Your task to perform on an android device: open app "The Home Depot" (install if not already installed) Image 0: 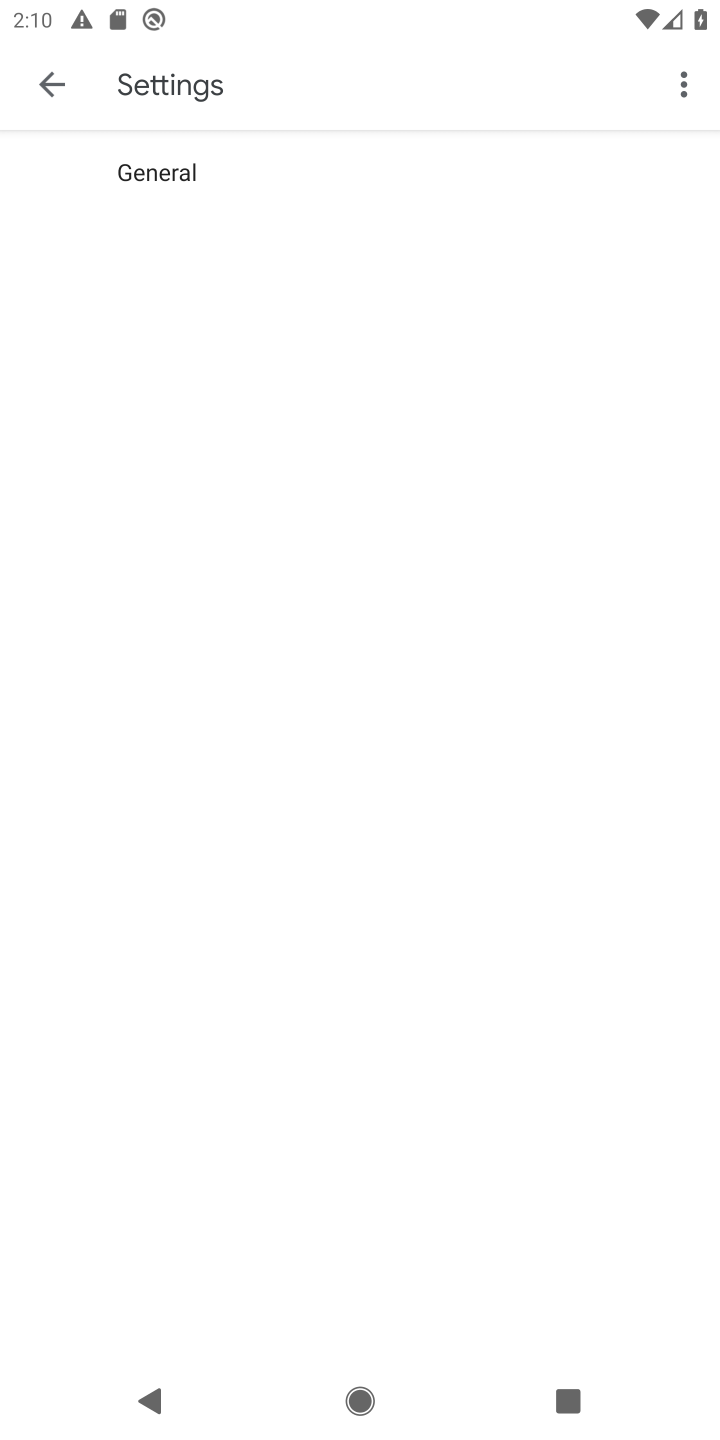
Step 0: press home button
Your task to perform on an android device: open app "The Home Depot" (install if not already installed) Image 1: 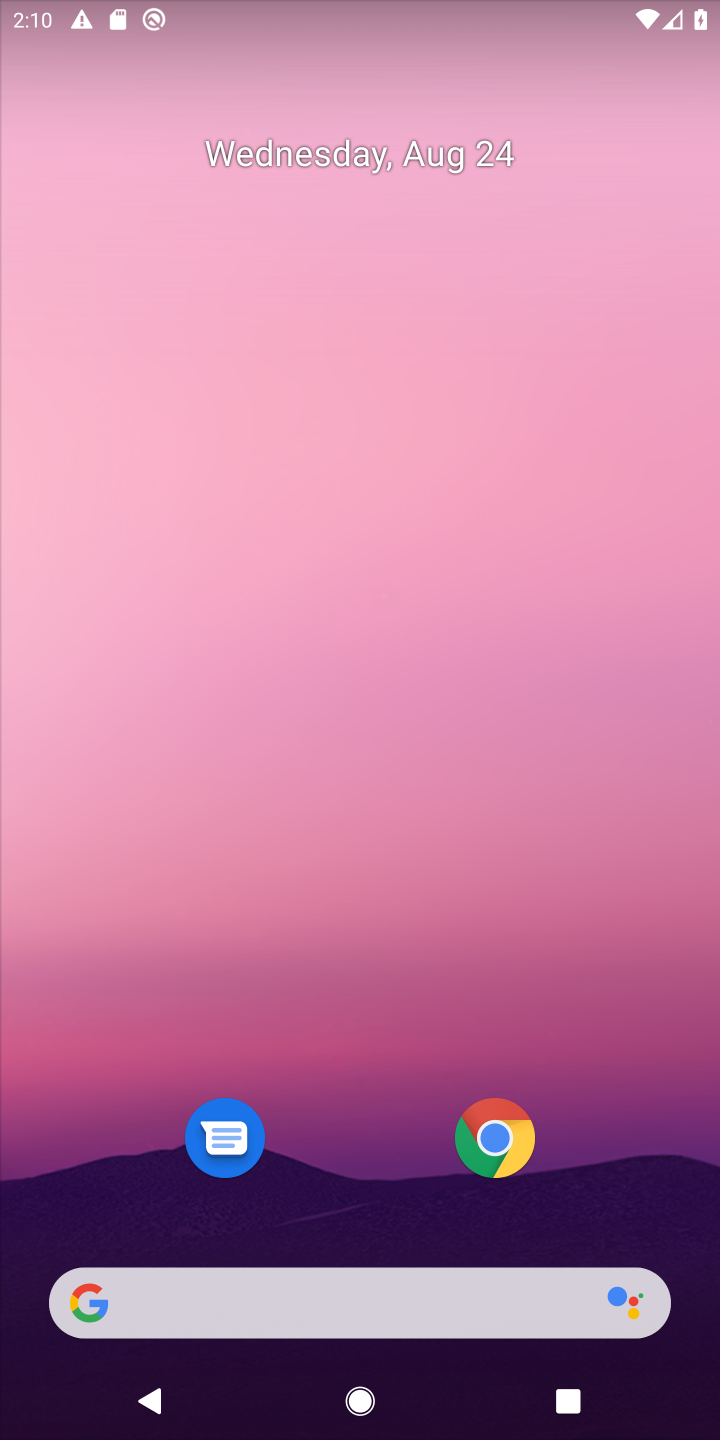
Step 1: drag from (357, 1180) to (359, 105)
Your task to perform on an android device: open app "The Home Depot" (install if not already installed) Image 2: 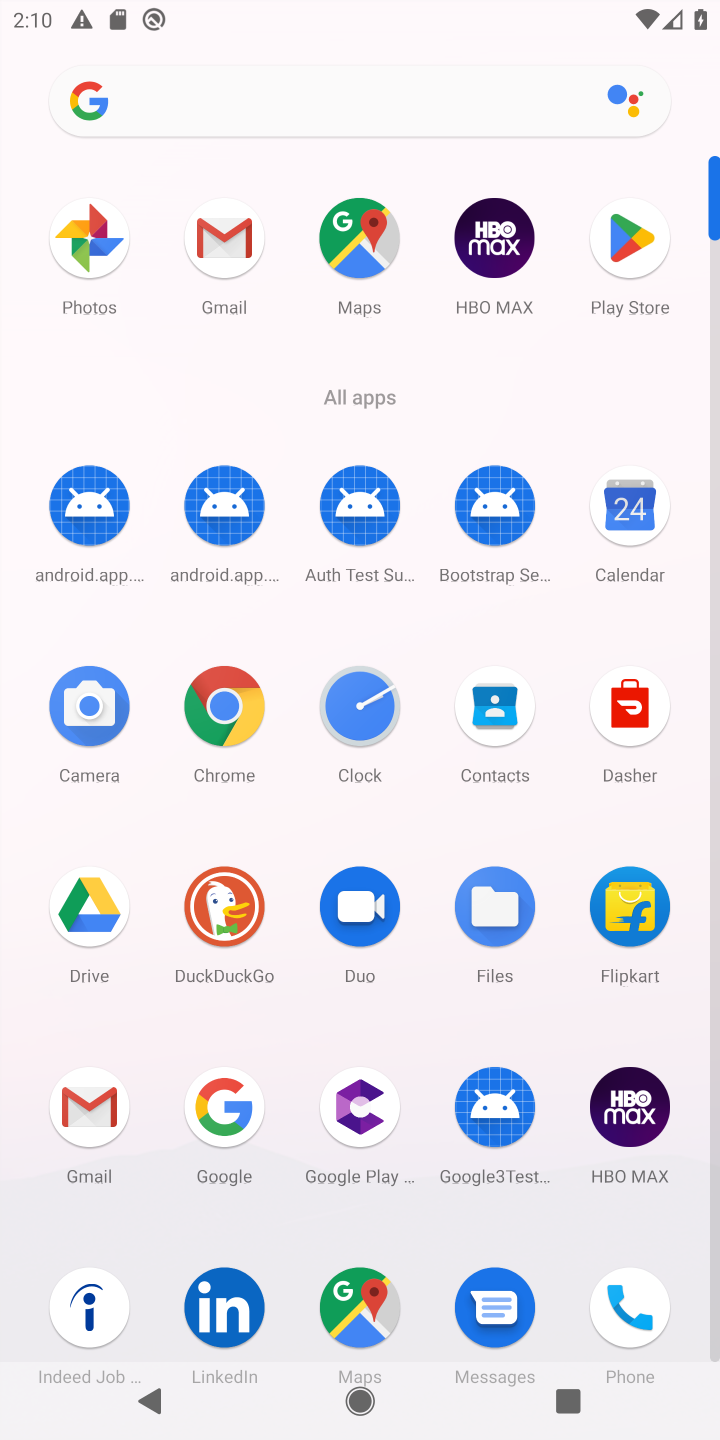
Step 2: click (629, 237)
Your task to perform on an android device: open app "The Home Depot" (install if not already installed) Image 3: 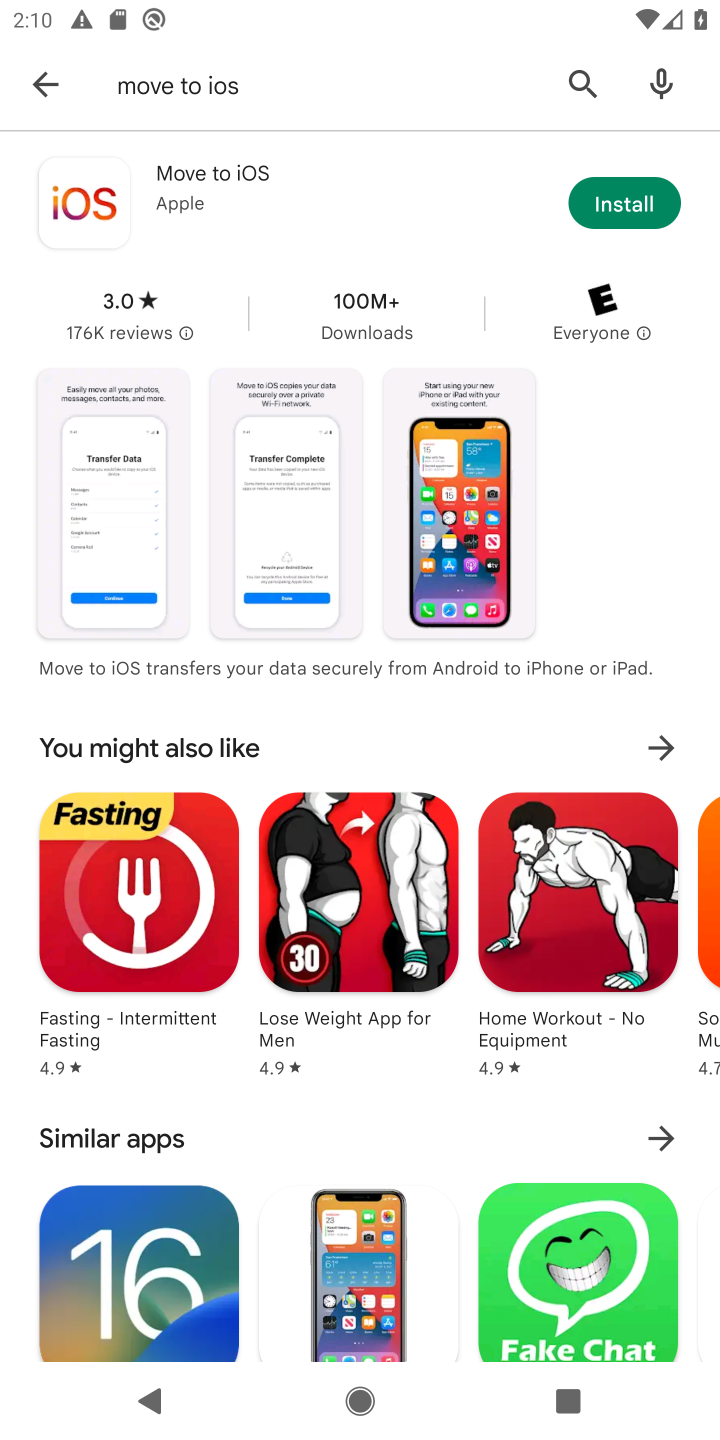
Step 3: click (586, 69)
Your task to perform on an android device: open app "The Home Depot" (install if not already installed) Image 4: 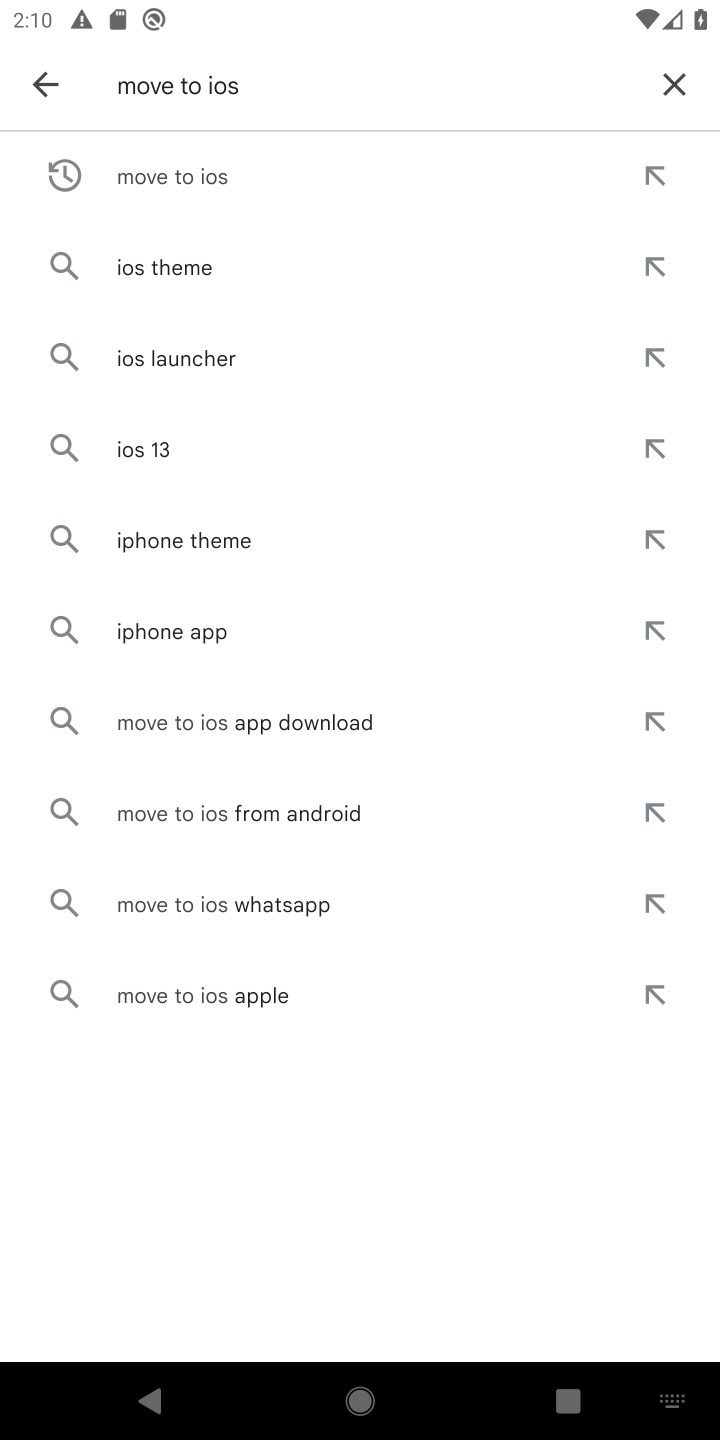
Step 4: click (679, 79)
Your task to perform on an android device: open app "The Home Depot" (install if not already installed) Image 5: 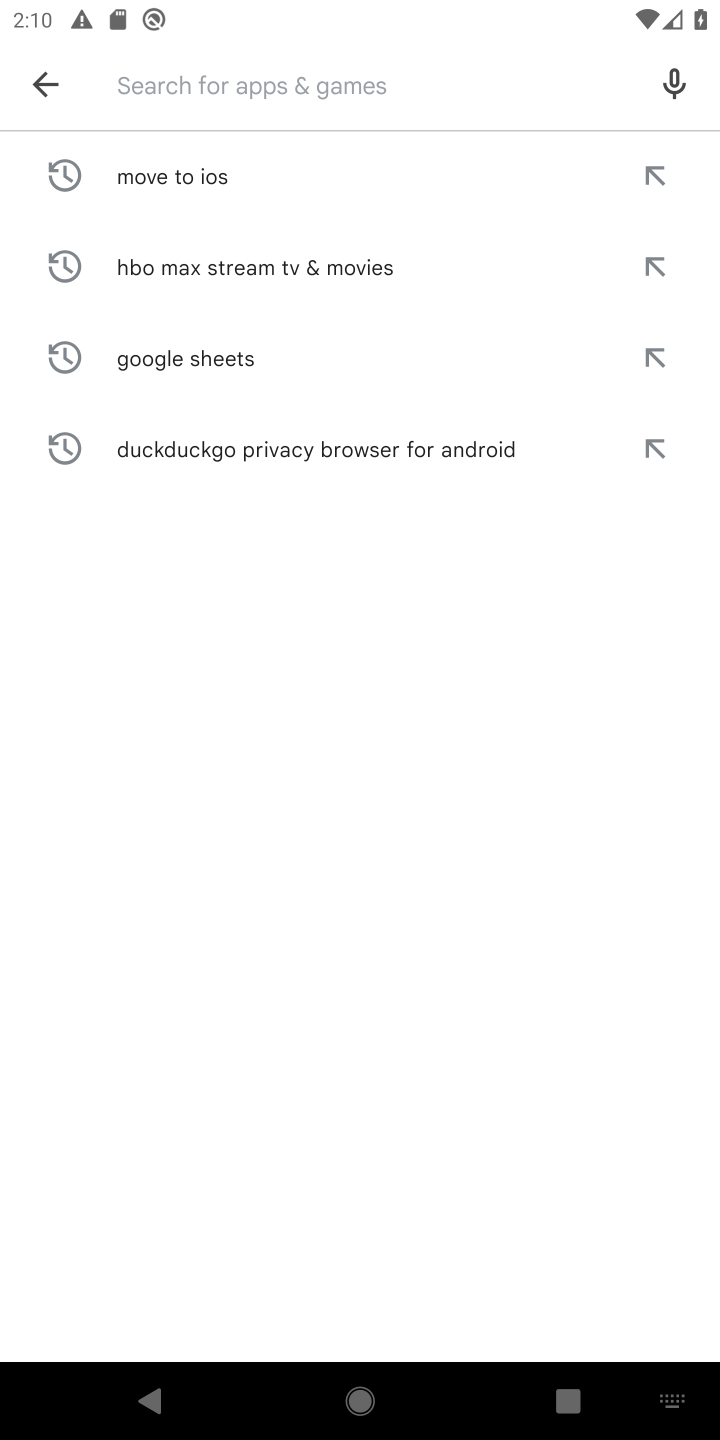
Step 5: type "The Home Depot"
Your task to perform on an android device: open app "The Home Depot" (install if not already installed) Image 6: 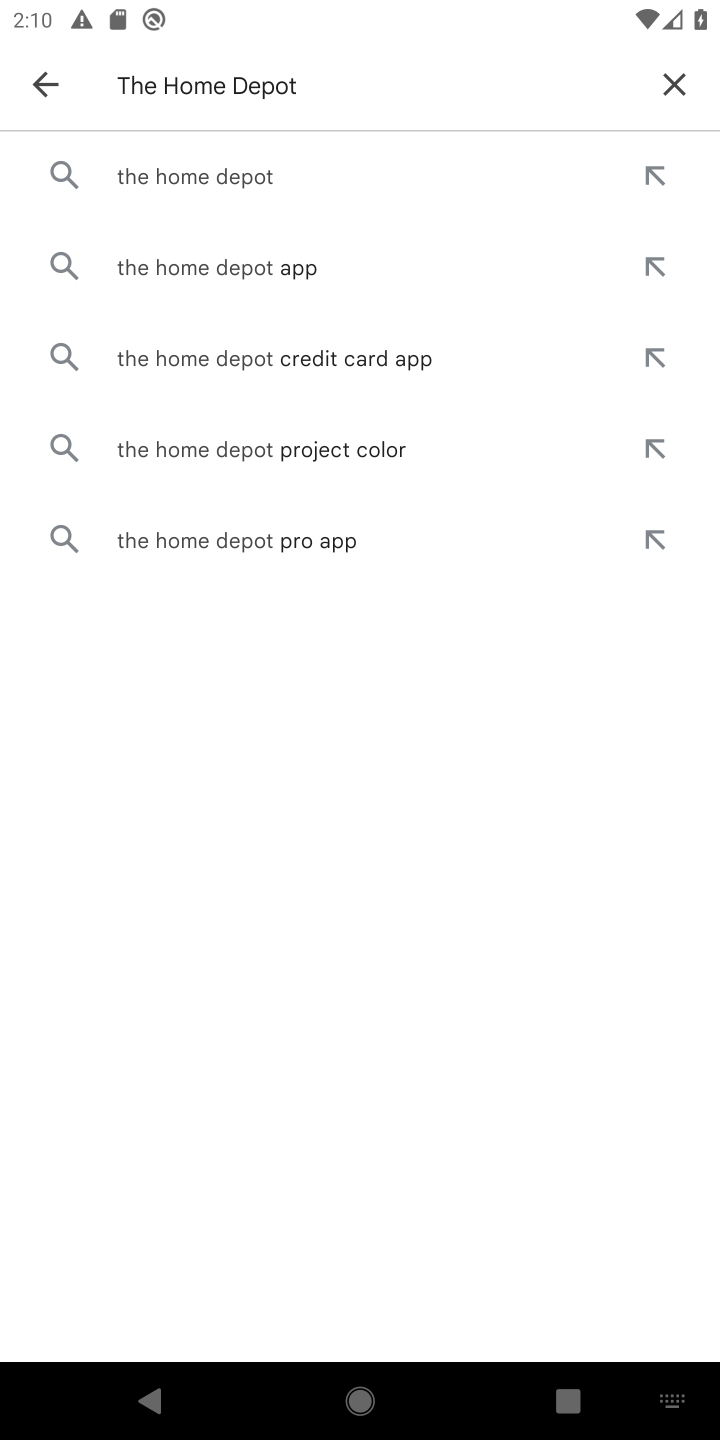
Step 6: click (240, 178)
Your task to perform on an android device: open app "The Home Depot" (install if not already installed) Image 7: 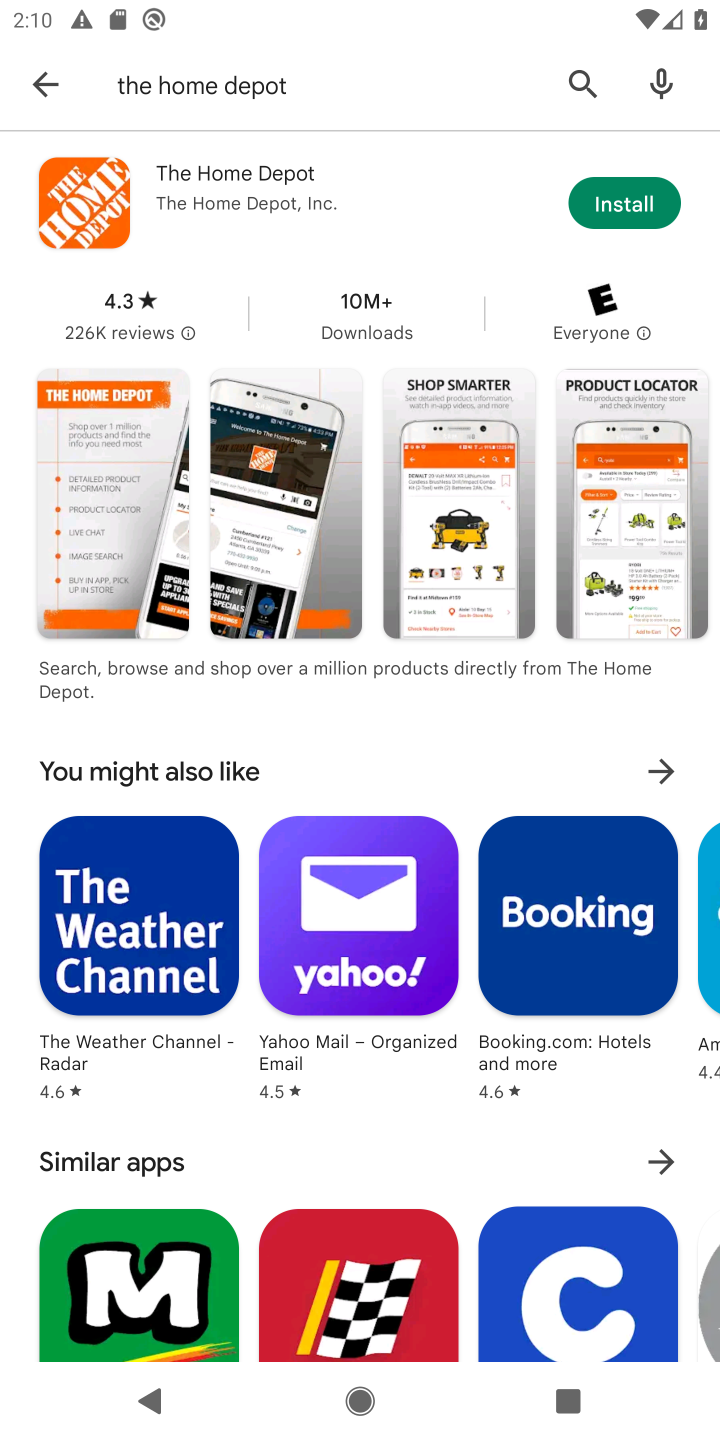
Step 7: click (622, 204)
Your task to perform on an android device: open app "The Home Depot" (install if not already installed) Image 8: 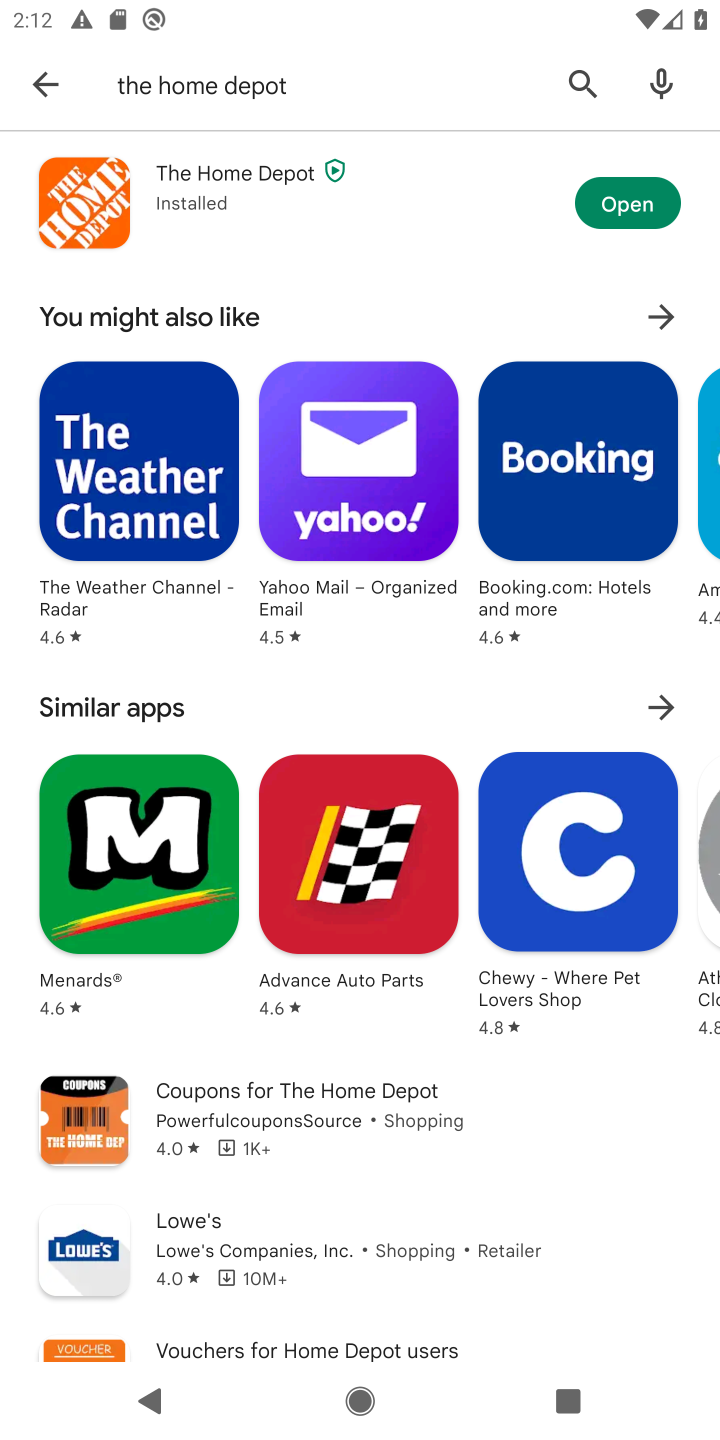
Step 8: click (647, 210)
Your task to perform on an android device: open app "The Home Depot" (install if not already installed) Image 9: 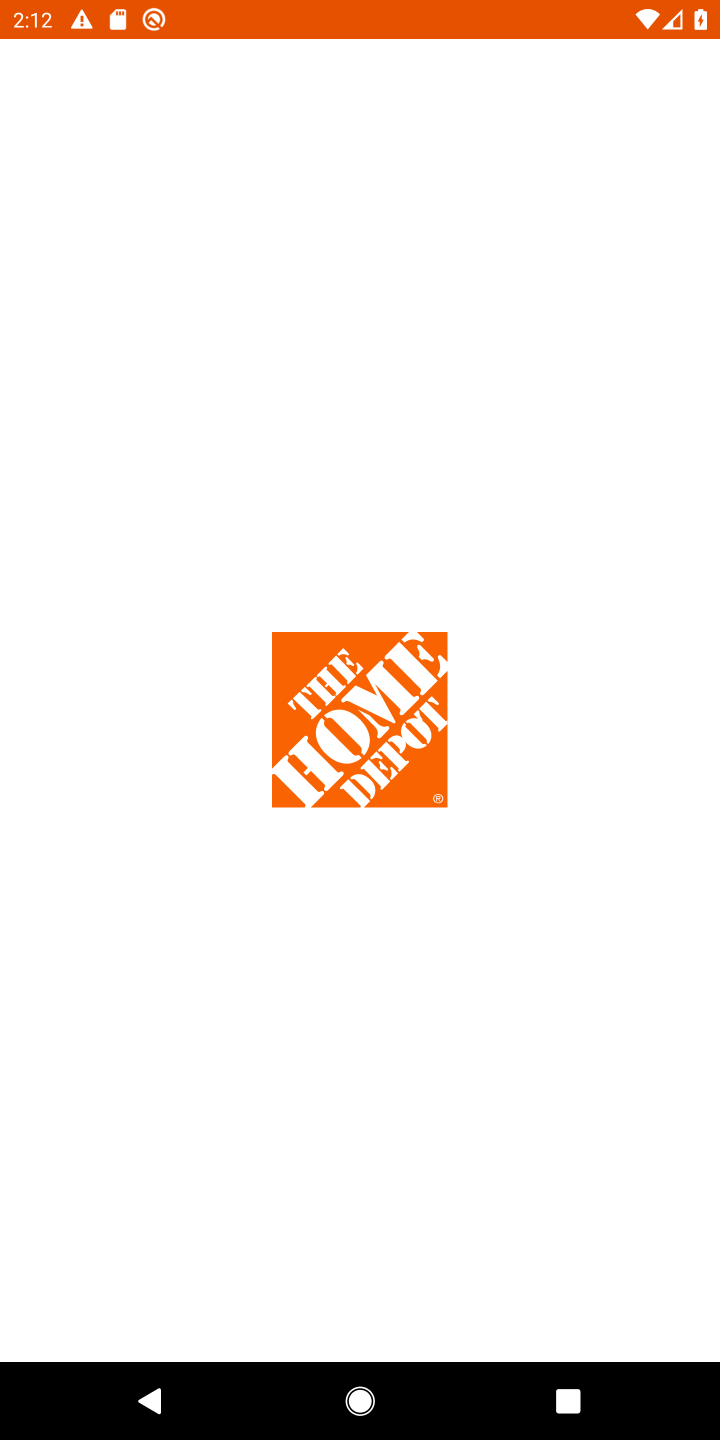
Step 9: task complete